Your task to perform on an android device: open app "Microsoft Outlook" (install if not already installed) and enter user name: "brand@gmail.com" and password: "persuasiveness" Image 0: 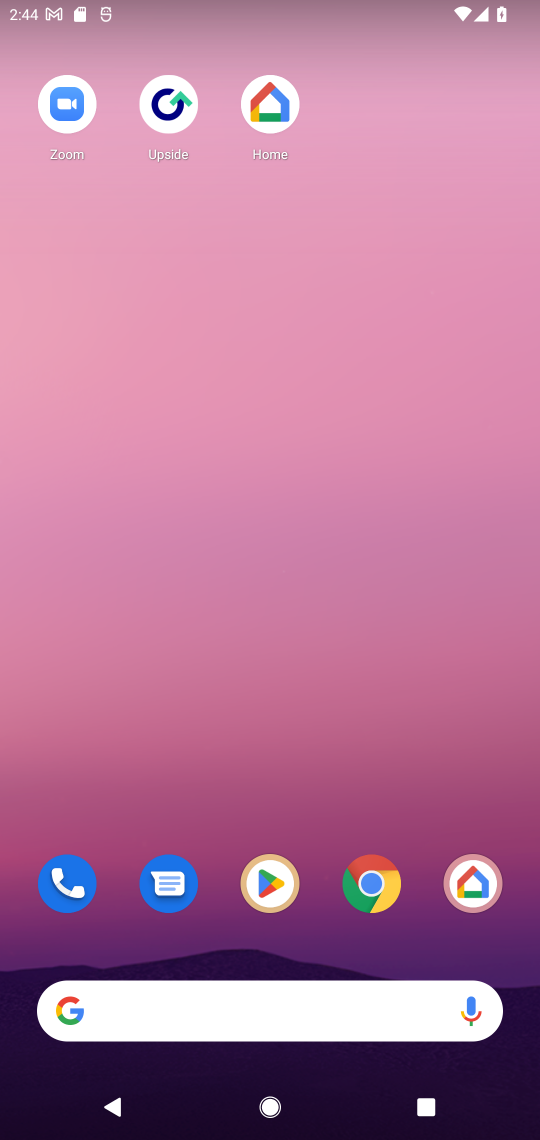
Step 0: drag from (116, 987) to (183, 297)
Your task to perform on an android device: open app "Microsoft Outlook" (install if not already installed) and enter user name: "brand@gmail.com" and password: "persuasiveness" Image 1: 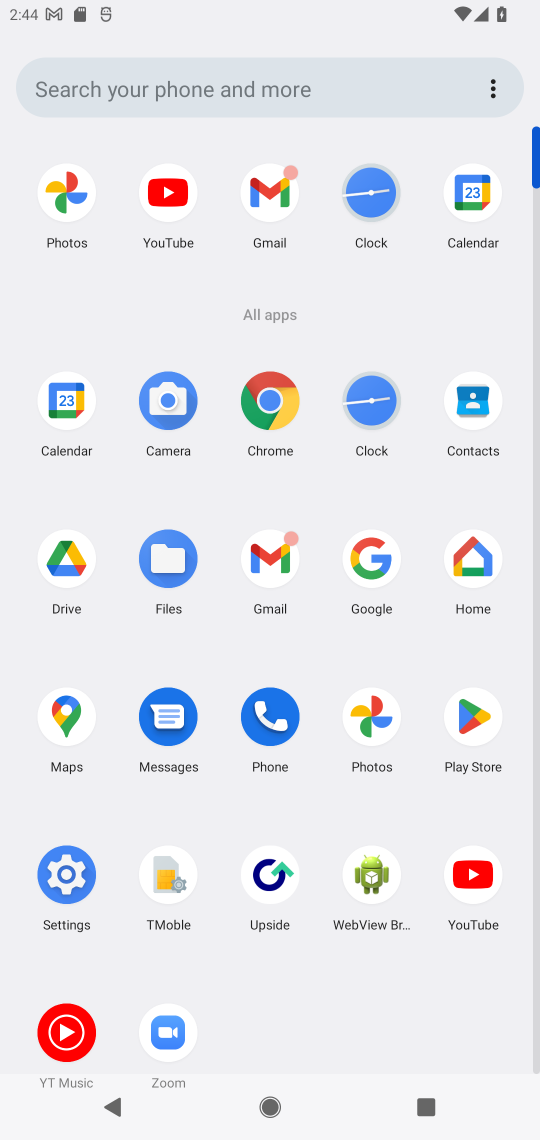
Step 1: click (474, 714)
Your task to perform on an android device: open app "Microsoft Outlook" (install if not already installed) and enter user name: "brand@gmail.com" and password: "persuasiveness" Image 2: 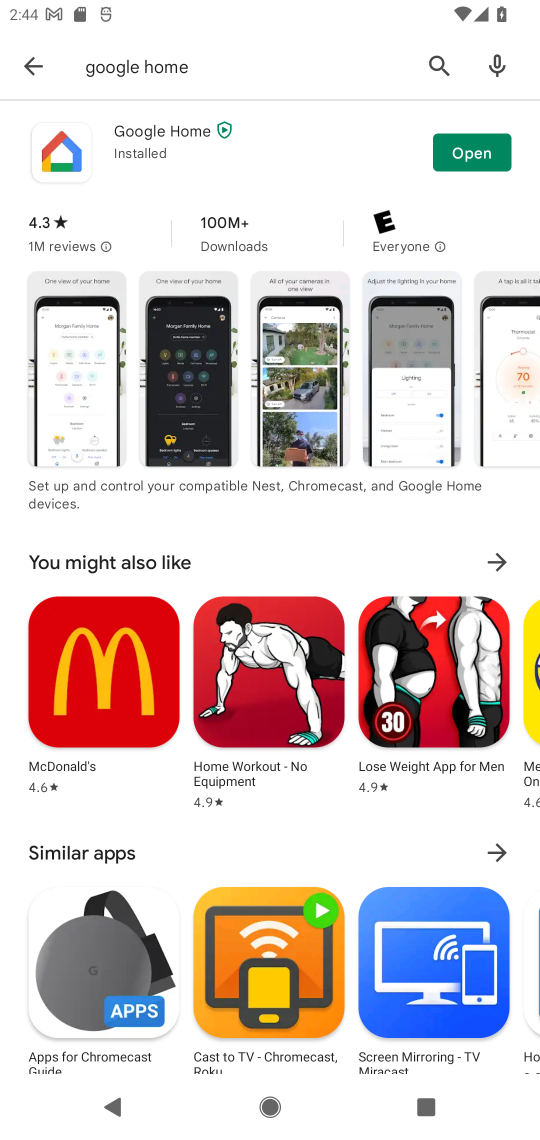
Step 2: click (424, 70)
Your task to perform on an android device: open app "Microsoft Outlook" (install if not already installed) and enter user name: "brand@gmail.com" and password: "persuasiveness" Image 3: 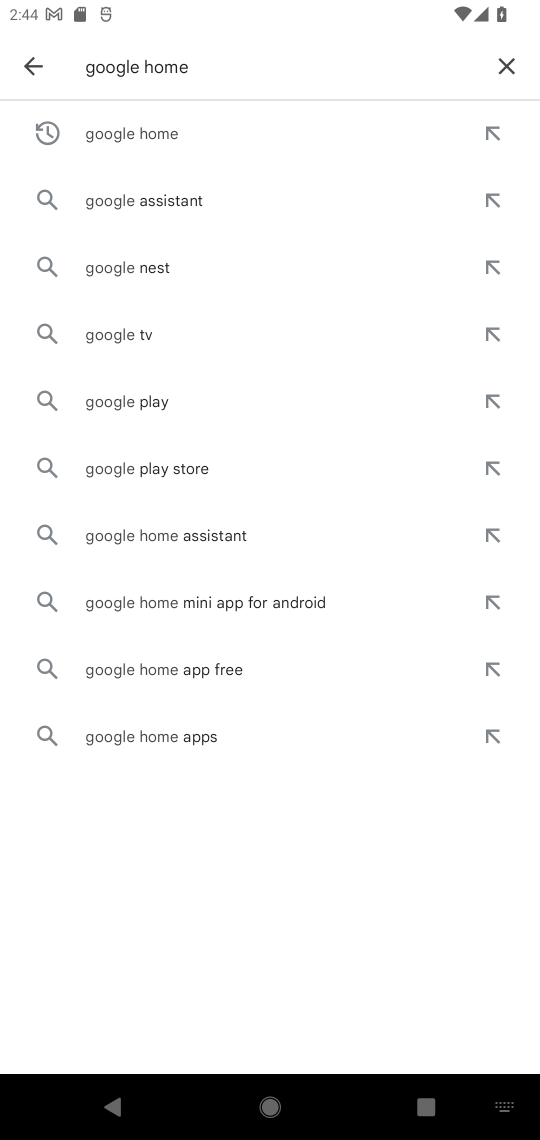
Step 3: click (494, 67)
Your task to perform on an android device: open app "Microsoft Outlook" (install if not already installed) and enter user name: "brand@gmail.com" and password: "persuasiveness" Image 4: 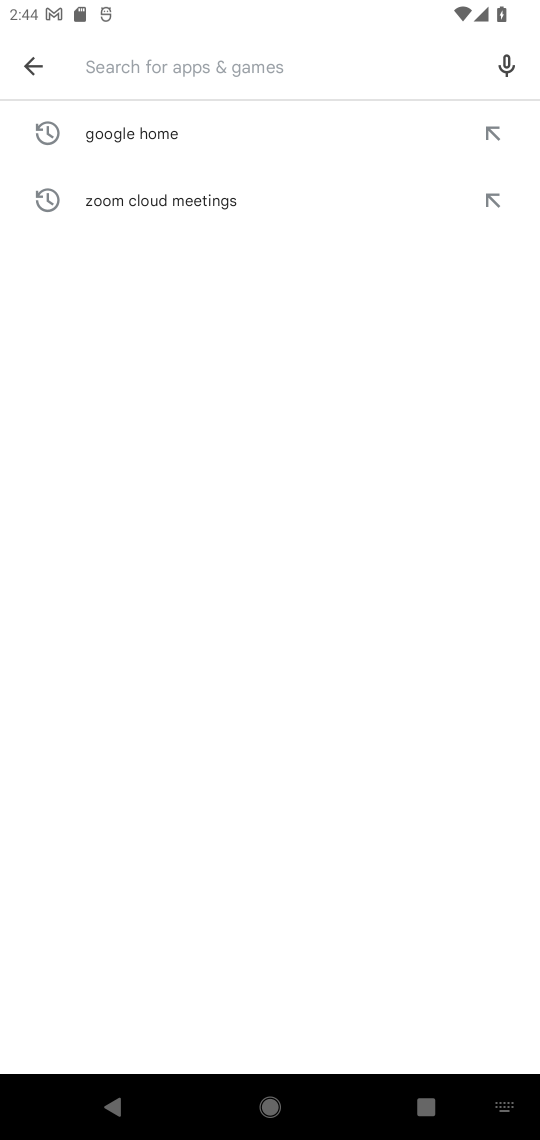
Step 4: type "Microsoft Outlook"
Your task to perform on an android device: open app "Microsoft Outlook" (install if not already installed) and enter user name: "brand@gmail.com" and password: "persuasiveness" Image 5: 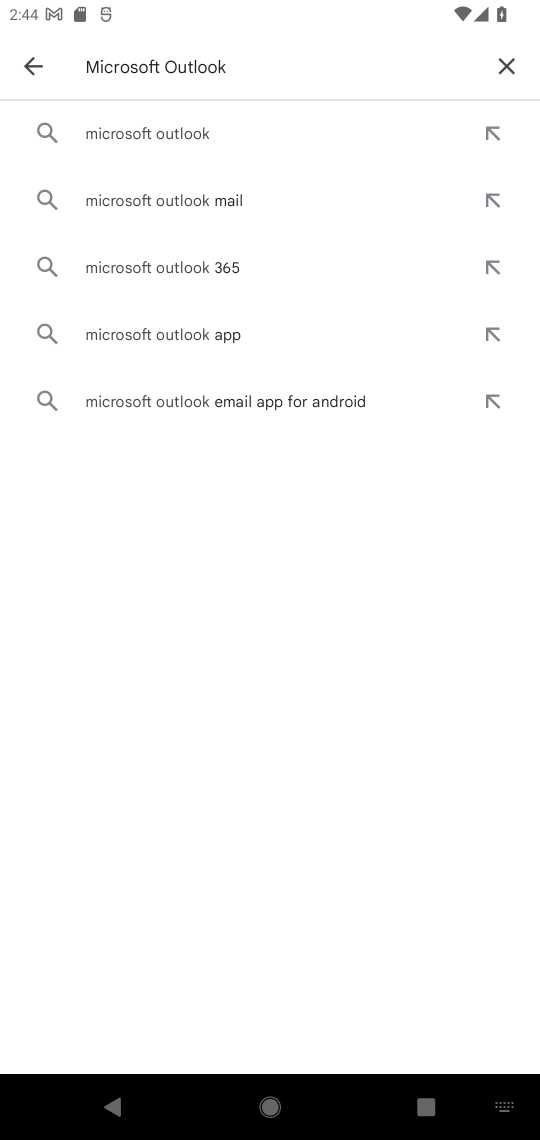
Step 5: click (192, 132)
Your task to perform on an android device: open app "Microsoft Outlook" (install if not already installed) and enter user name: "brand@gmail.com" and password: "persuasiveness" Image 6: 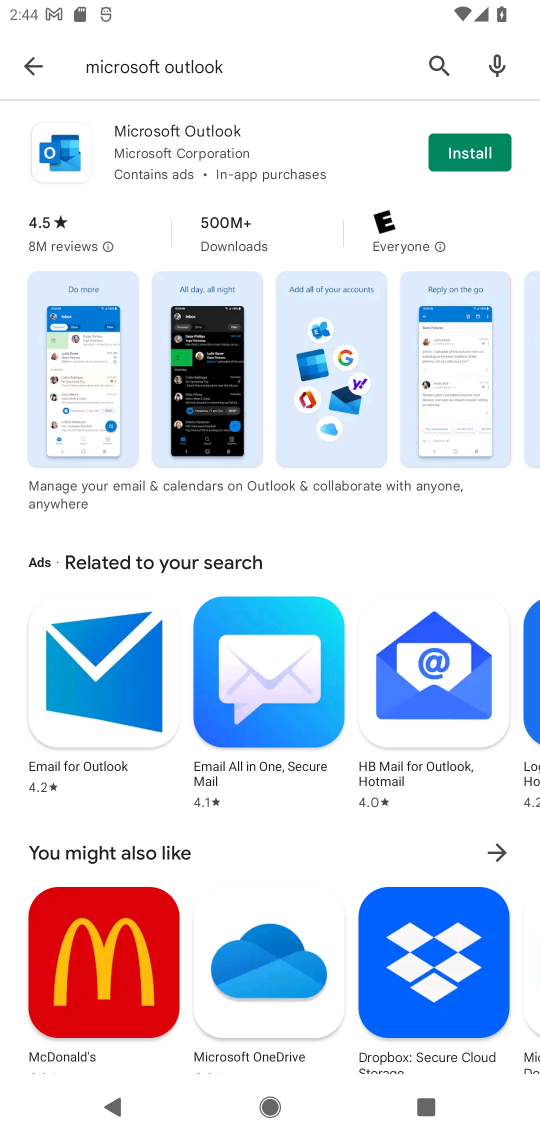
Step 6: click (453, 157)
Your task to perform on an android device: open app "Microsoft Outlook" (install if not already installed) and enter user name: "brand@gmail.com" and password: "persuasiveness" Image 7: 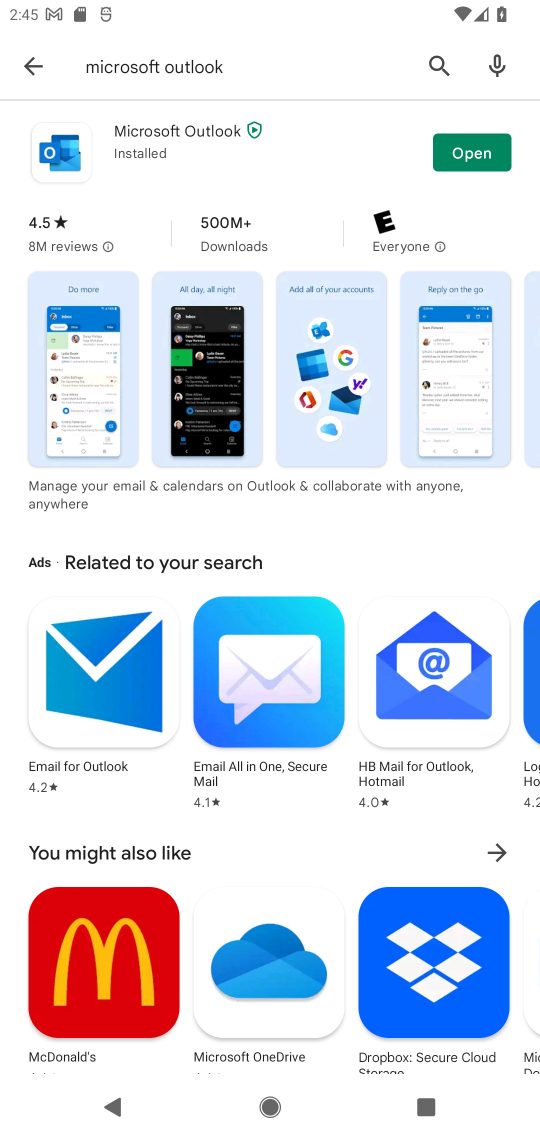
Step 7: click (478, 150)
Your task to perform on an android device: open app "Microsoft Outlook" (install if not already installed) and enter user name: "brand@gmail.com" and password: "persuasiveness" Image 8: 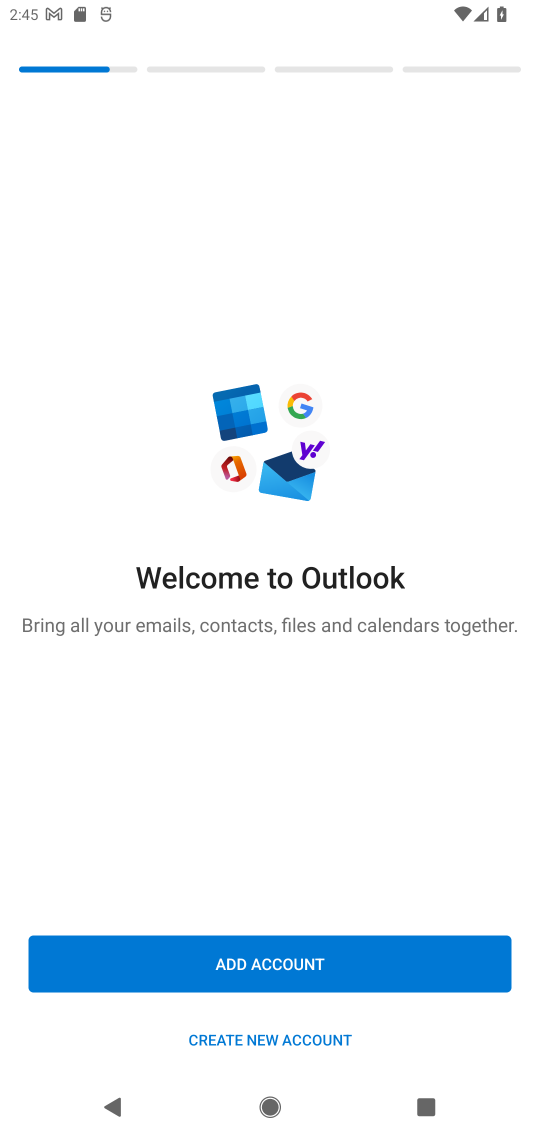
Step 8: task complete